Your task to perform on an android device: turn on wifi Image 0: 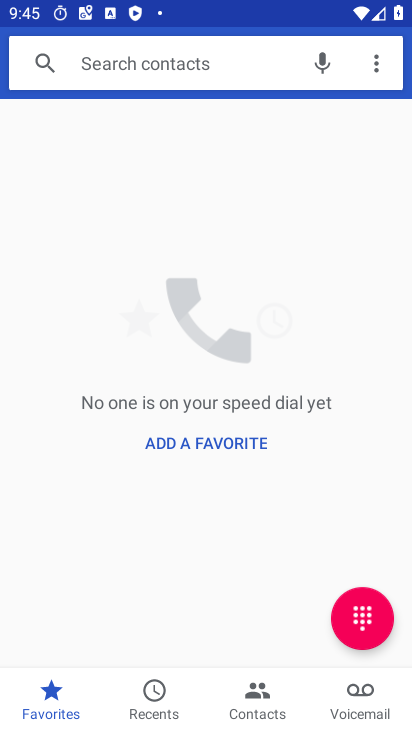
Step 0: press home button
Your task to perform on an android device: turn on wifi Image 1: 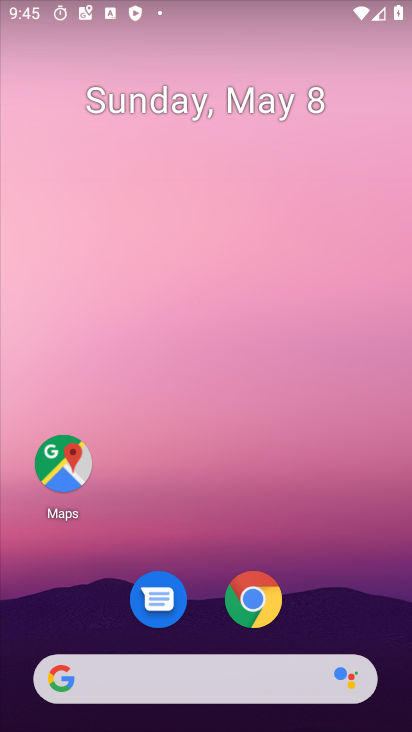
Step 1: drag from (254, 679) to (281, 206)
Your task to perform on an android device: turn on wifi Image 2: 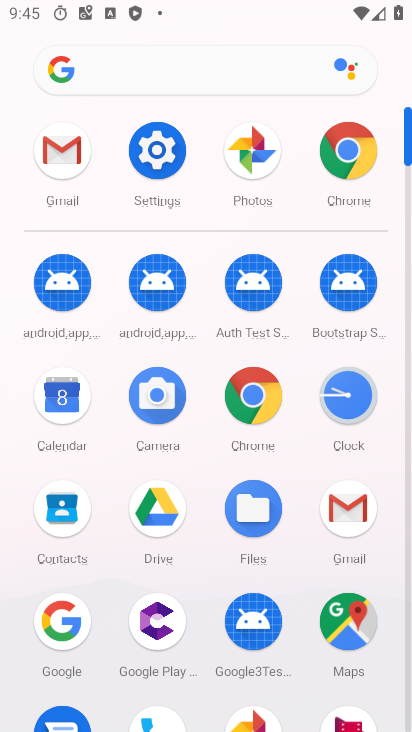
Step 2: click (170, 154)
Your task to perform on an android device: turn on wifi Image 3: 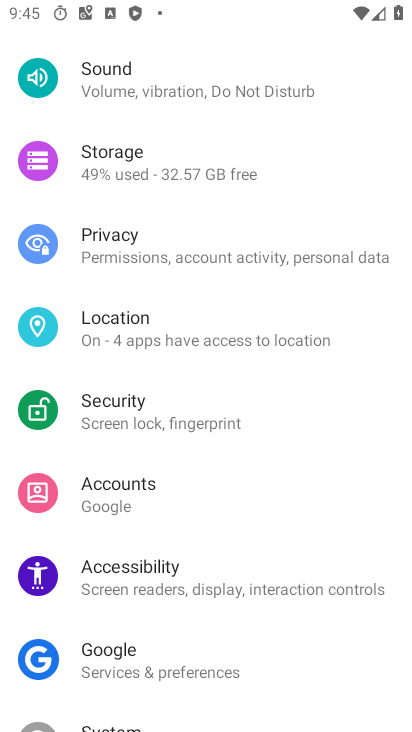
Step 3: drag from (197, 282) to (197, 549)
Your task to perform on an android device: turn on wifi Image 4: 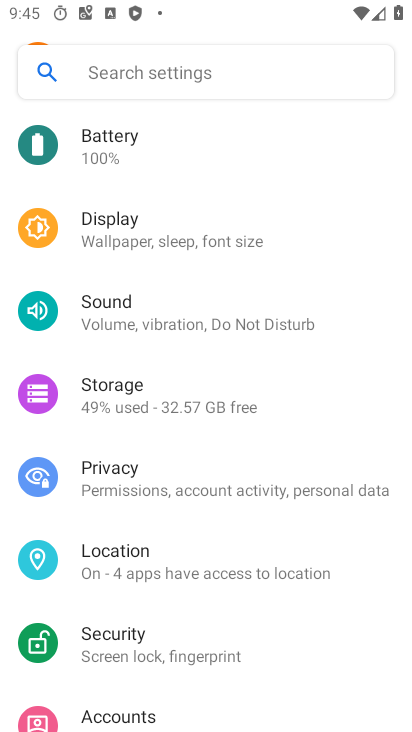
Step 4: drag from (270, 249) to (246, 533)
Your task to perform on an android device: turn on wifi Image 5: 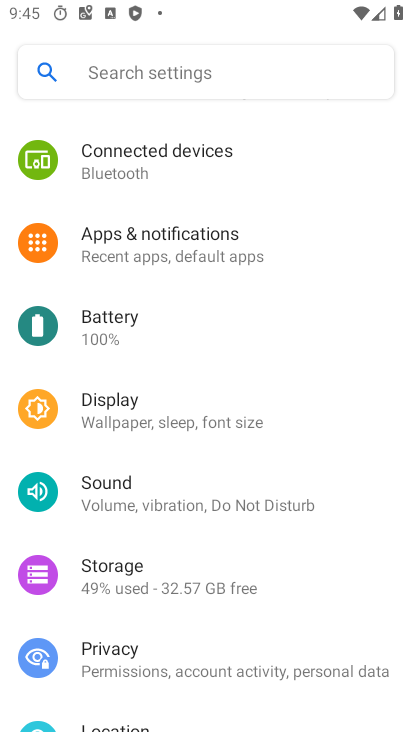
Step 5: drag from (256, 203) to (256, 453)
Your task to perform on an android device: turn on wifi Image 6: 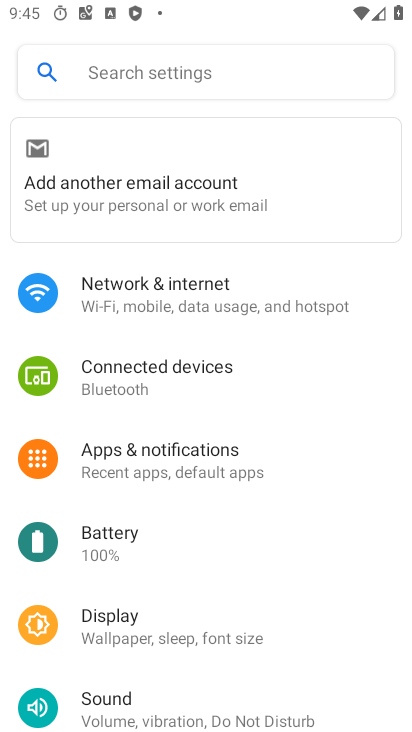
Step 6: click (237, 278)
Your task to perform on an android device: turn on wifi Image 7: 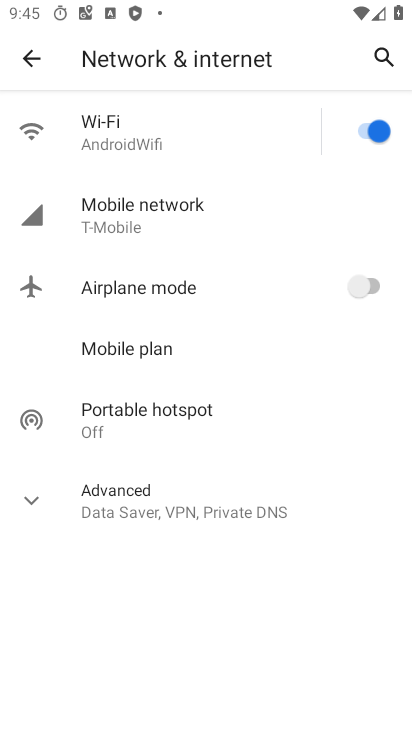
Step 7: task complete